Your task to perform on an android device: toggle airplane mode Image 0: 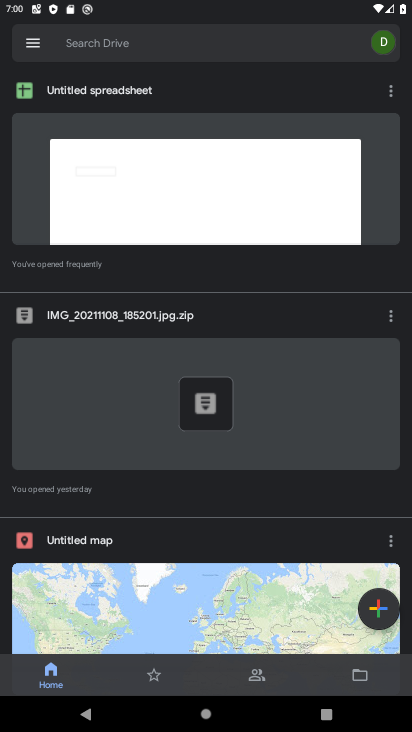
Step 0: press home button
Your task to perform on an android device: toggle airplane mode Image 1: 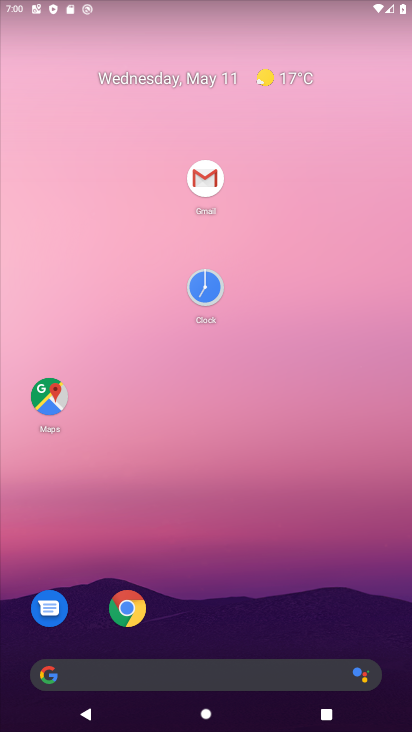
Step 1: drag from (273, 516) to (290, 113)
Your task to perform on an android device: toggle airplane mode Image 2: 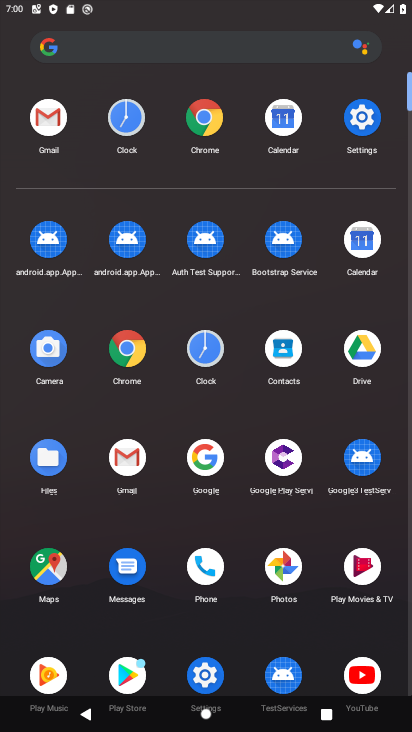
Step 2: drag from (359, 126) to (233, 212)
Your task to perform on an android device: toggle airplane mode Image 3: 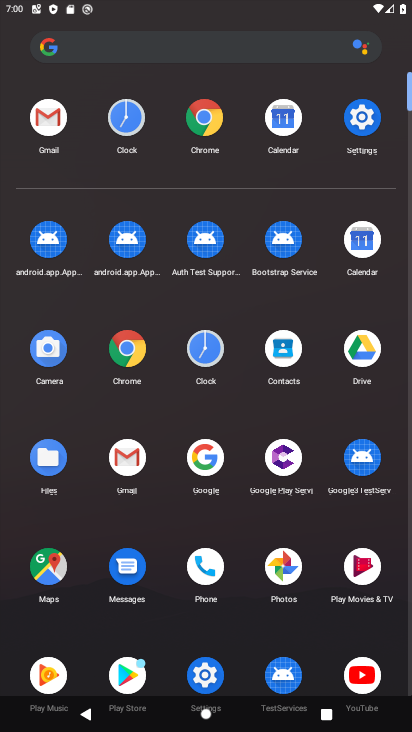
Step 3: drag from (360, 119) to (259, 178)
Your task to perform on an android device: toggle airplane mode Image 4: 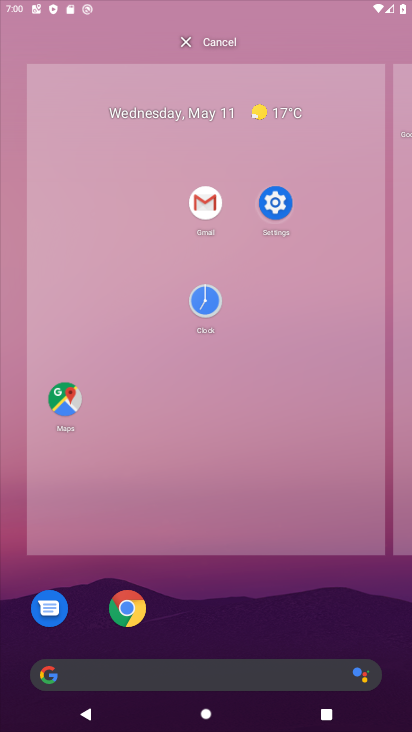
Step 4: click (259, 178)
Your task to perform on an android device: toggle airplane mode Image 5: 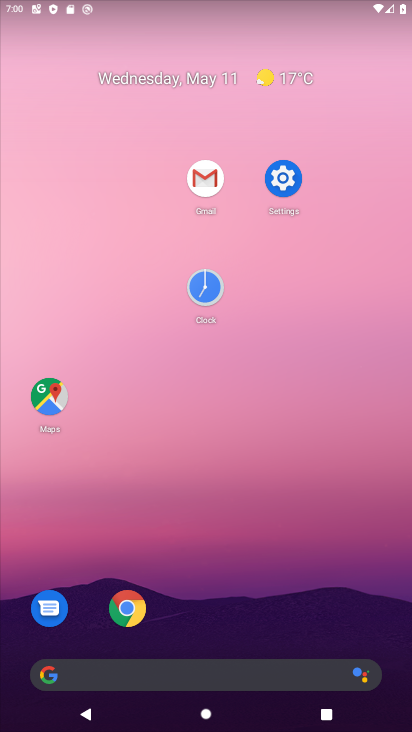
Step 5: click (283, 178)
Your task to perform on an android device: toggle airplane mode Image 6: 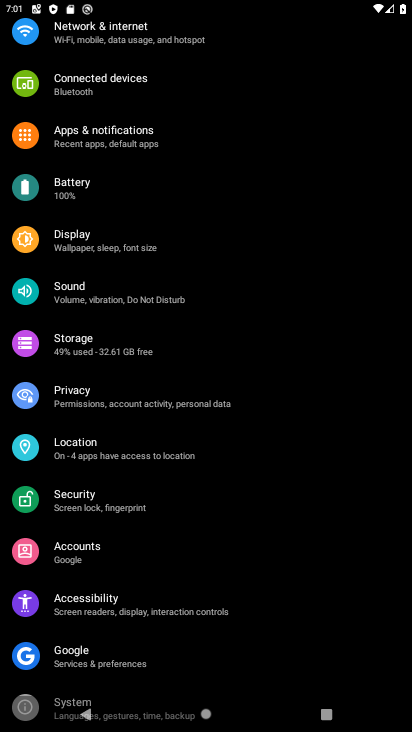
Step 6: drag from (218, 75) to (206, 378)
Your task to perform on an android device: toggle airplane mode Image 7: 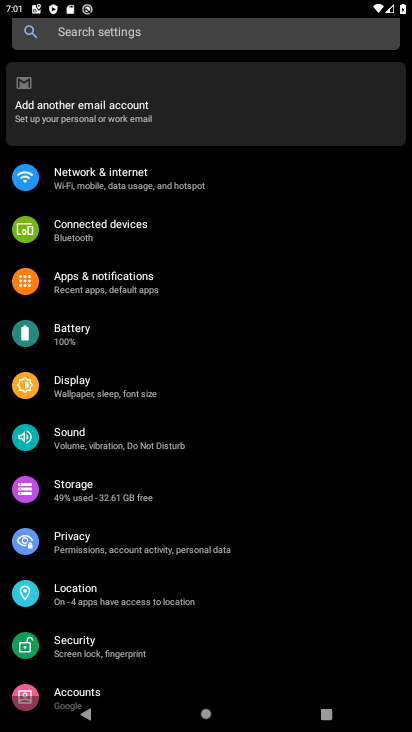
Step 7: click (214, 198)
Your task to perform on an android device: toggle airplane mode Image 8: 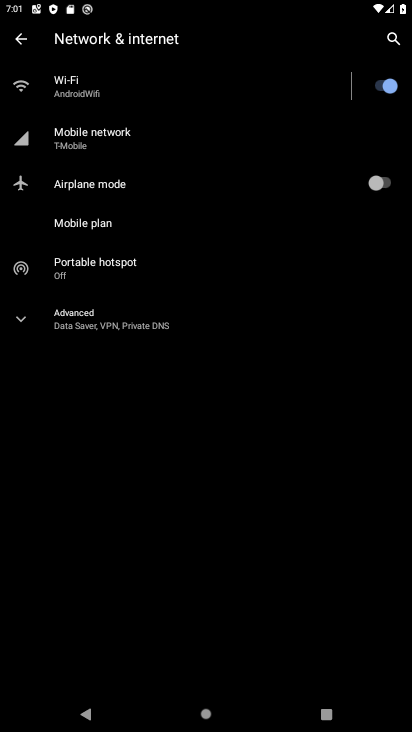
Step 8: click (352, 189)
Your task to perform on an android device: toggle airplane mode Image 9: 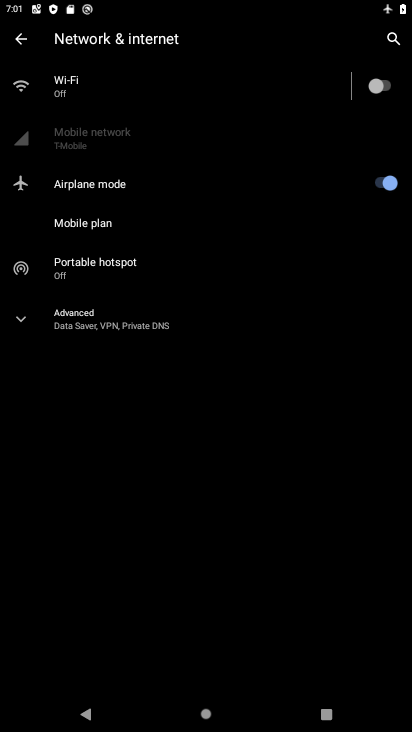
Step 9: task complete